Your task to perform on an android device: set the timer Image 0: 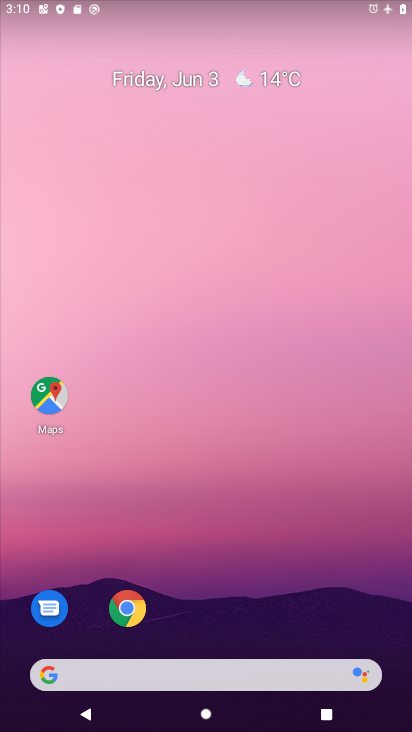
Step 0: drag from (168, 668) to (268, 26)
Your task to perform on an android device: set the timer Image 1: 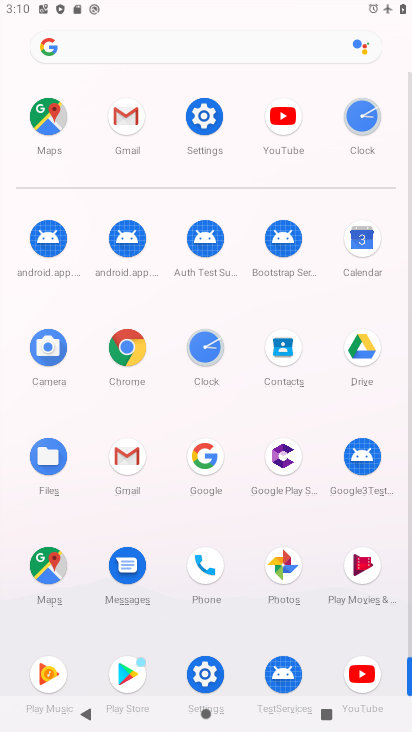
Step 1: click (212, 369)
Your task to perform on an android device: set the timer Image 2: 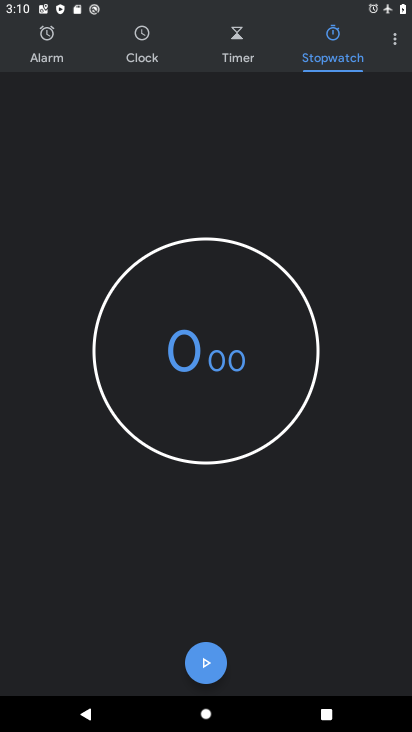
Step 2: click (234, 23)
Your task to perform on an android device: set the timer Image 3: 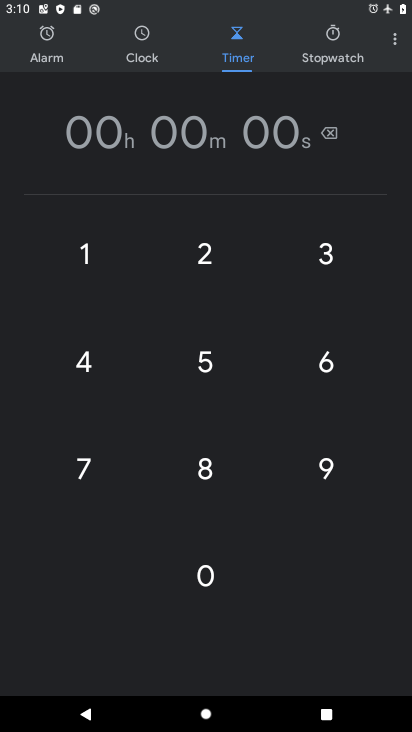
Step 3: click (207, 254)
Your task to perform on an android device: set the timer Image 4: 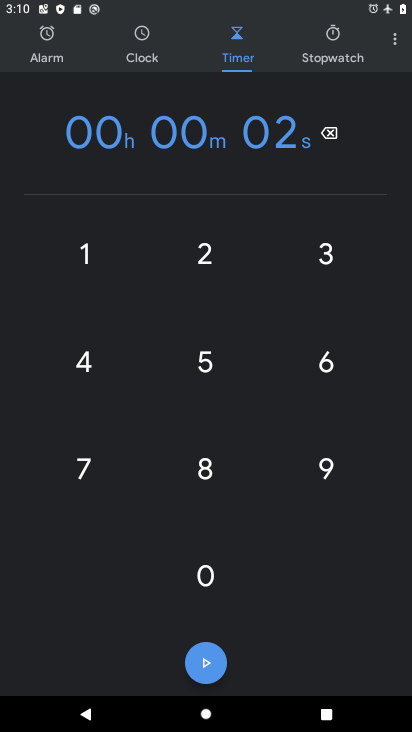
Step 4: click (205, 383)
Your task to perform on an android device: set the timer Image 5: 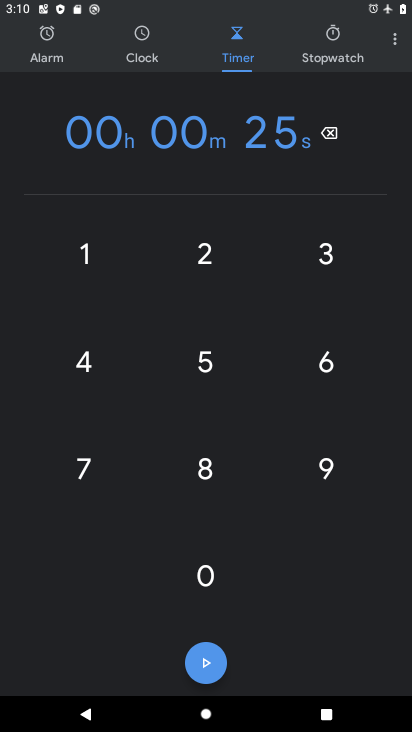
Step 5: click (82, 380)
Your task to perform on an android device: set the timer Image 6: 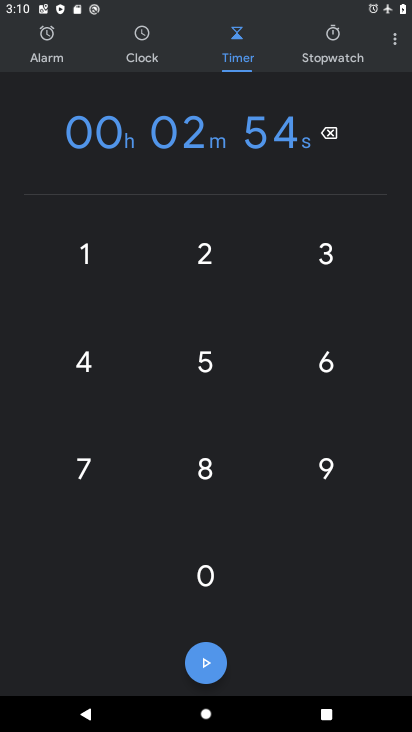
Step 6: click (197, 470)
Your task to perform on an android device: set the timer Image 7: 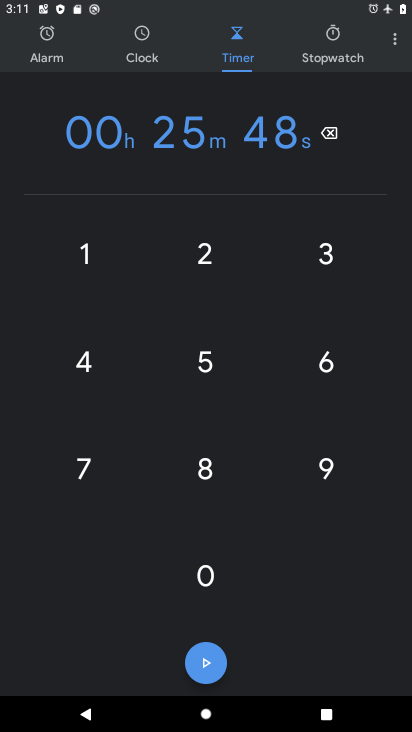
Step 7: click (218, 663)
Your task to perform on an android device: set the timer Image 8: 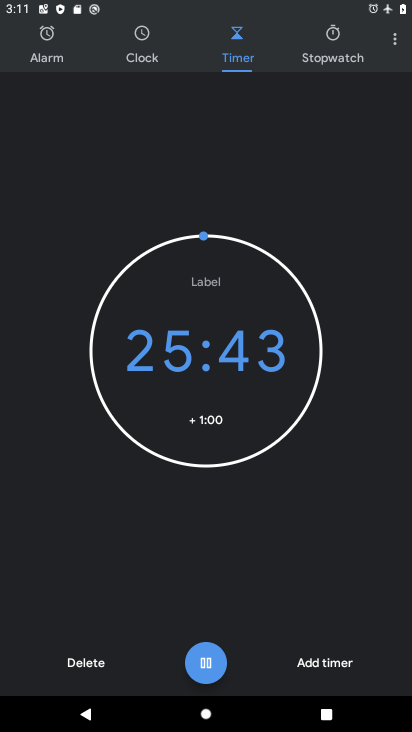
Step 8: task complete